Your task to perform on an android device: toggle javascript in the chrome app Image 0: 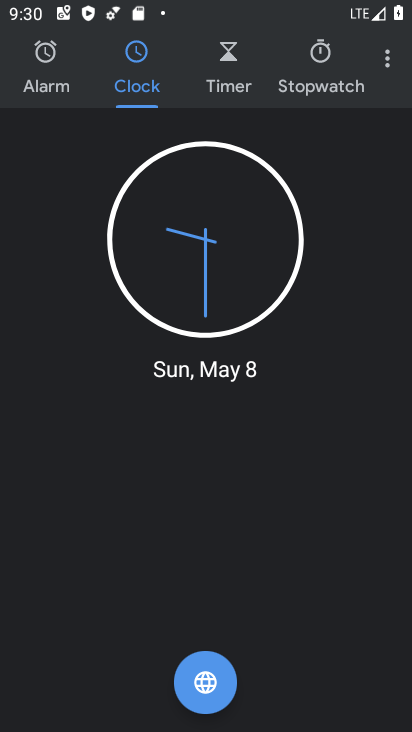
Step 0: press home button
Your task to perform on an android device: toggle javascript in the chrome app Image 1: 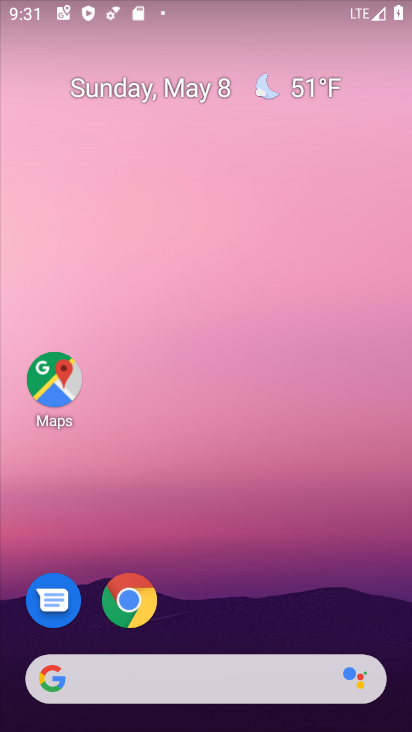
Step 1: click (127, 602)
Your task to perform on an android device: toggle javascript in the chrome app Image 2: 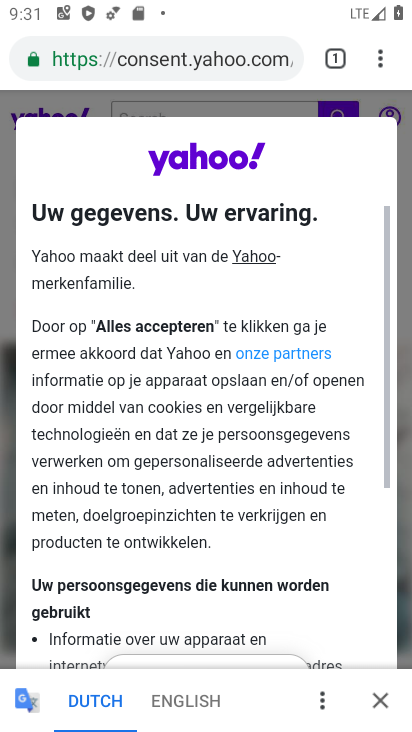
Step 2: click (384, 60)
Your task to perform on an android device: toggle javascript in the chrome app Image 3: 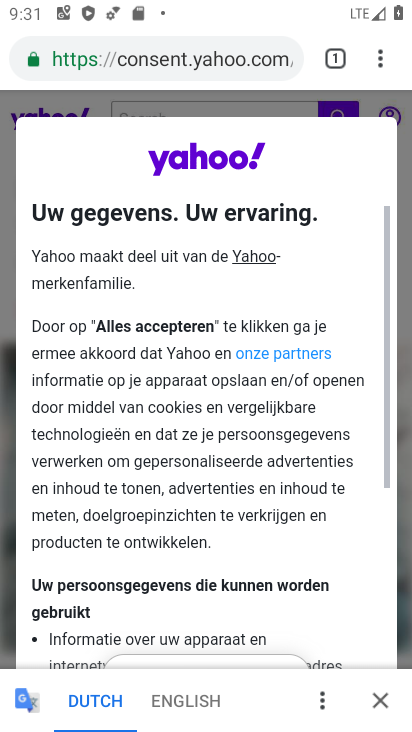
Step 3: drag from (381, 60) to (205, 639)
Your task to perform on an android device: toggle javascript in the chrome app Image 4: 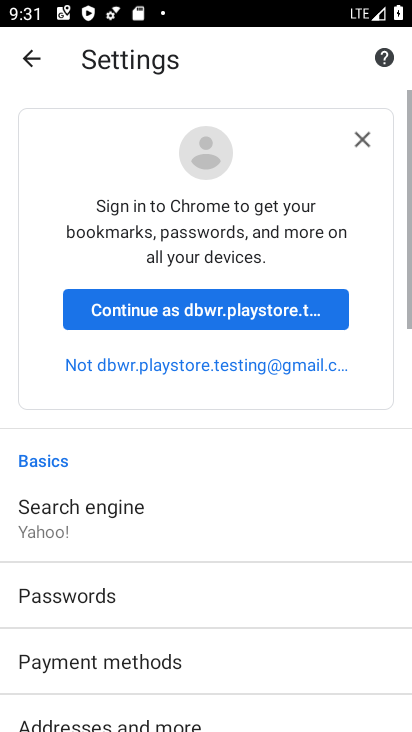
Step 4: drag from (205, 638) to (201, 33)
Your task to perform on an android device: toggle javascript in the chrome app Image 5: 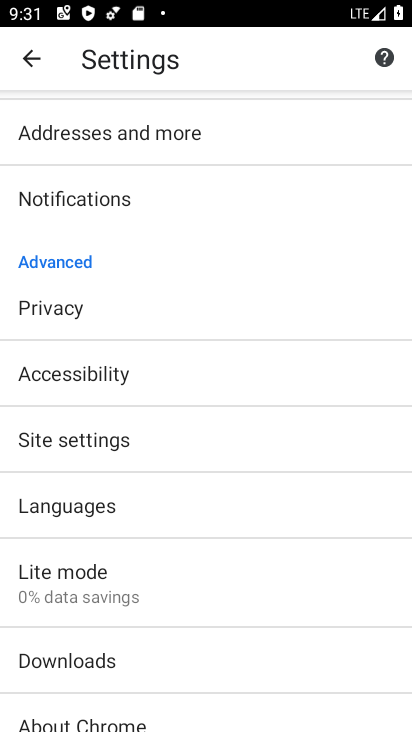
Step 5: click (105, 441)
Your task to perform on an android device: toggle javascript in the chrome app Image 6: 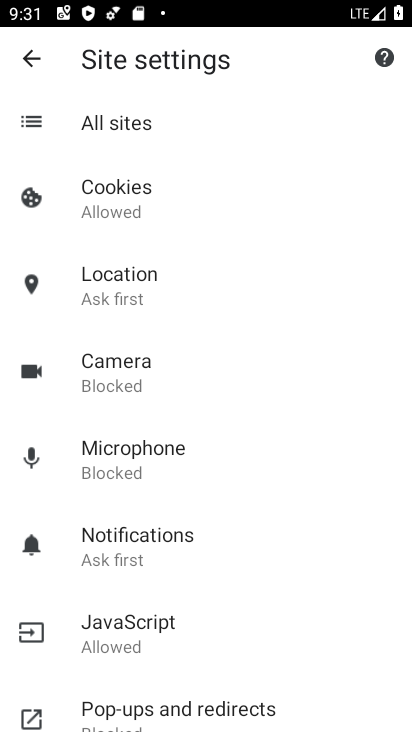
Step 6: click (150, 632)
Your task to perform on an android device: toggle javascript in the chrome app Image 7: 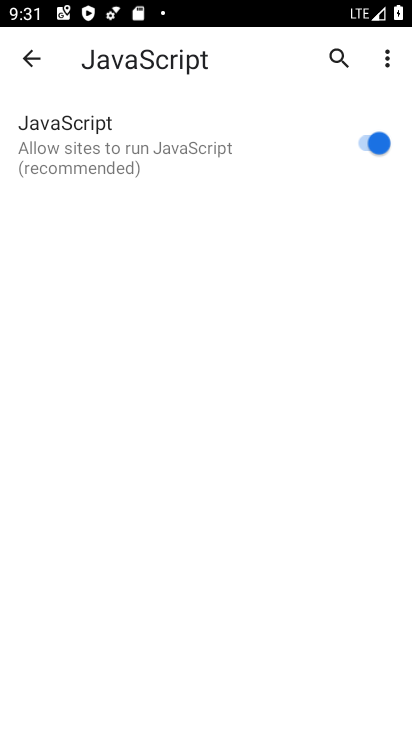
Step 7: click (389, 141)
Your task to perform on an android device: toggle javascript in the chrome app Image 8: 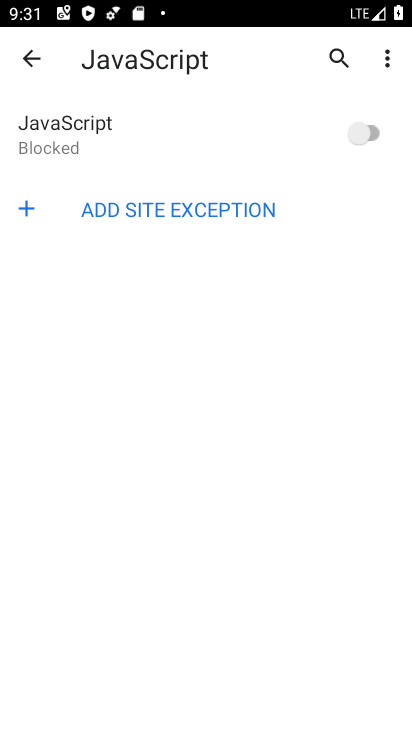
Step 8: task complete